Your task to perform on an android device: Open the Play Movies app and select the watchlist tab. Image 0: 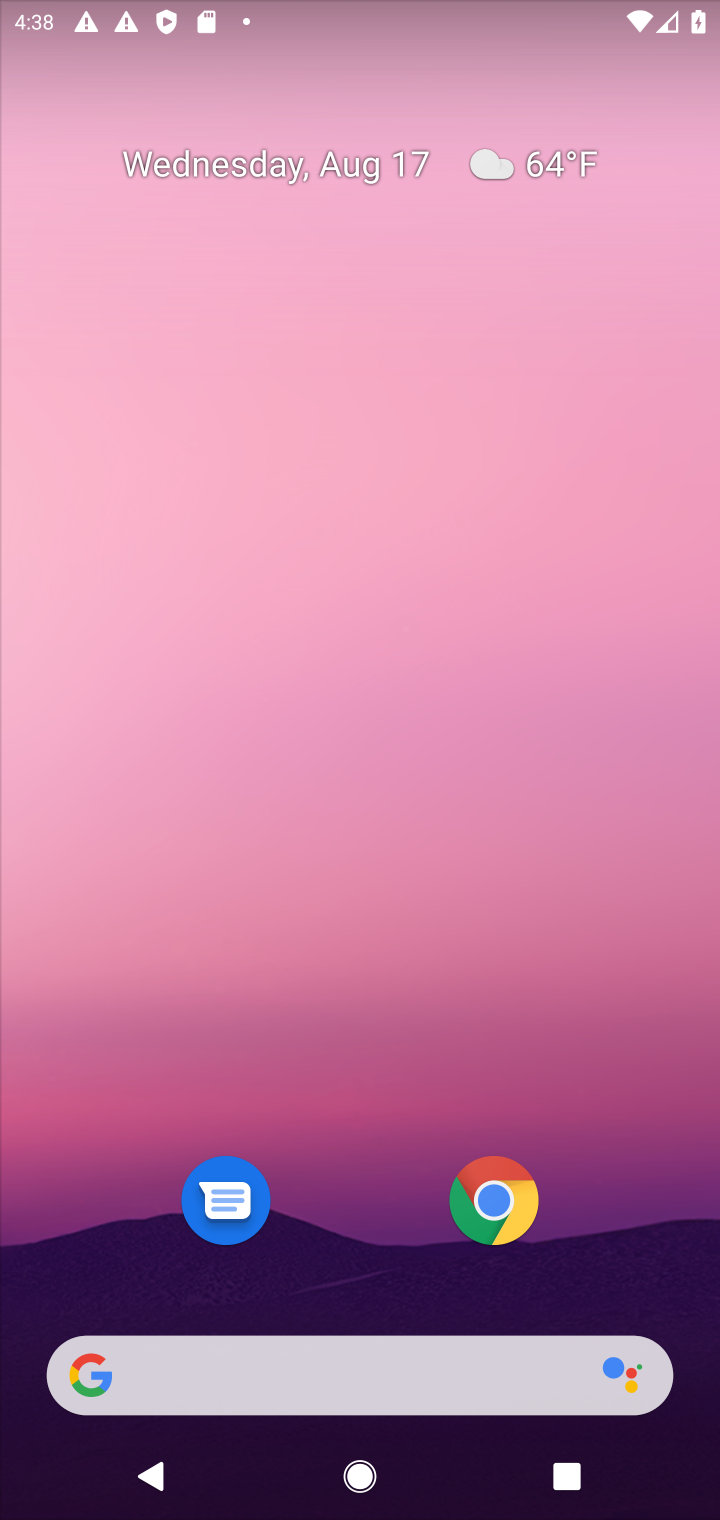
Step 0: drag from (324, 1023) to (348, 342)
Your task to perform on an android device: Open the Play Movies app and select the watchlist tab. Image 1: 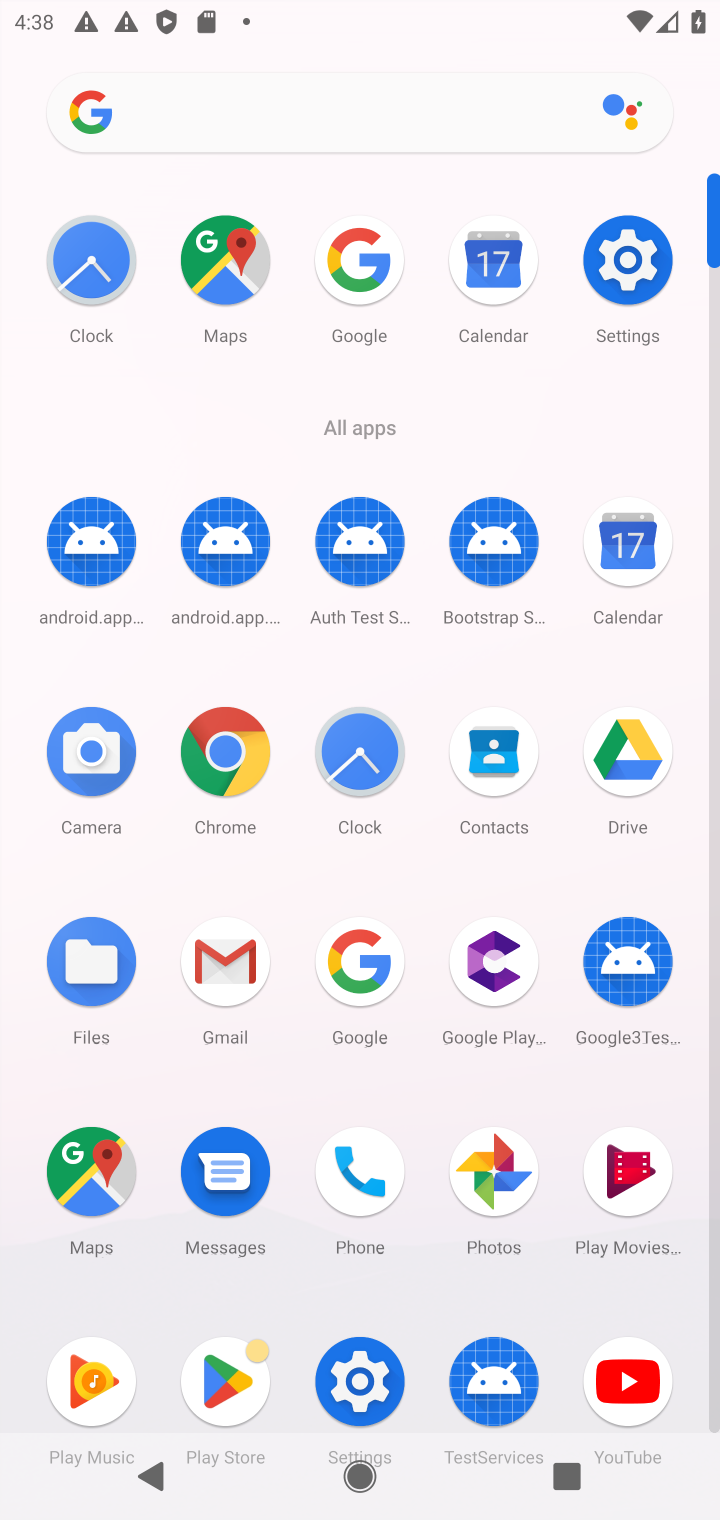
Step 1: click (641, 1158)
Your task to perform on an android device: Open the Play Movies app and select the watchlist tab. Image 2: 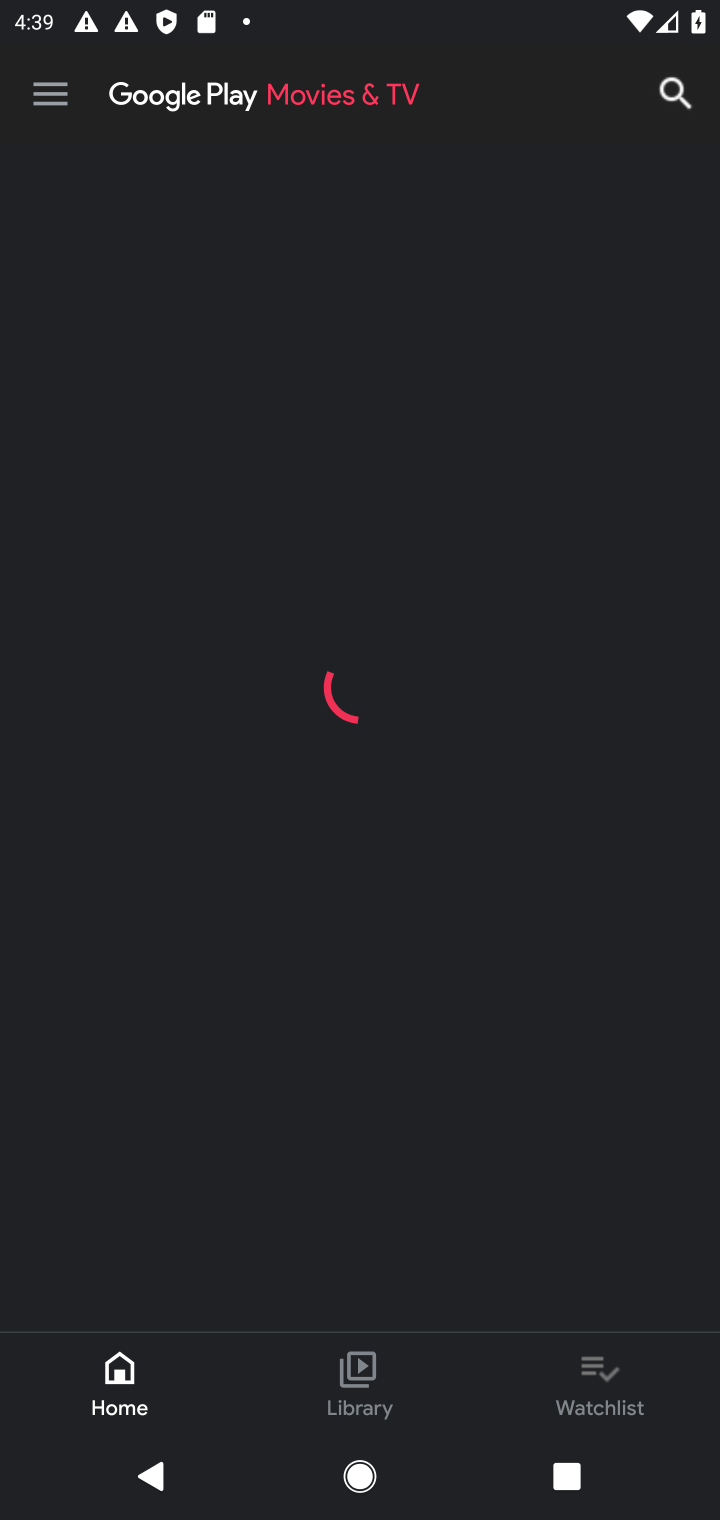
Step 2: click (619, 1371)
Your task to perform on an android device: Open the Play Movies app and select the watchlist tab. Image 3: 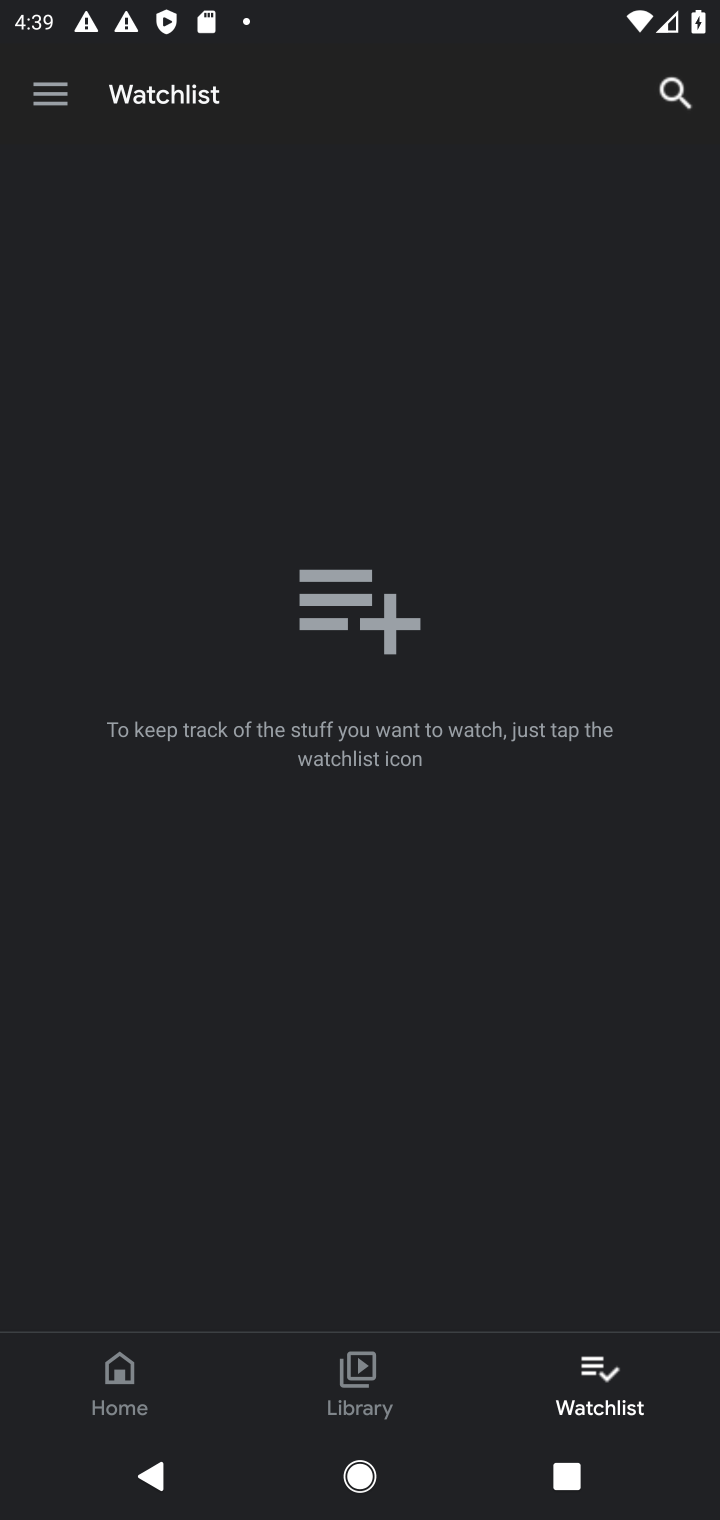
Step 3: task complete